Your task to perform on an android device: set the stopwatch Image 0: 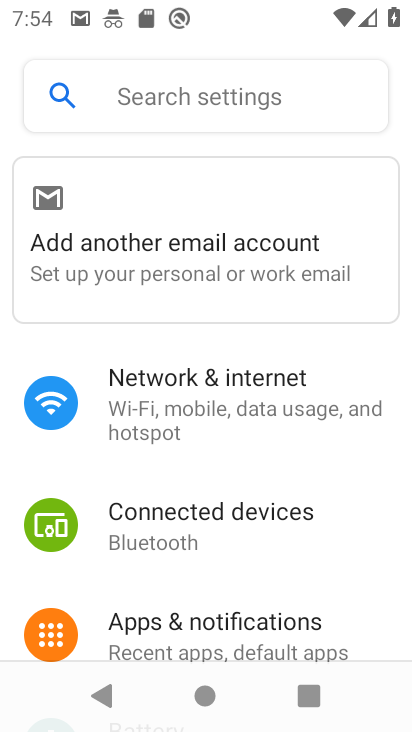
Step 0: press home button
Your task to perform on an android device: set the stopwatch Image 1: 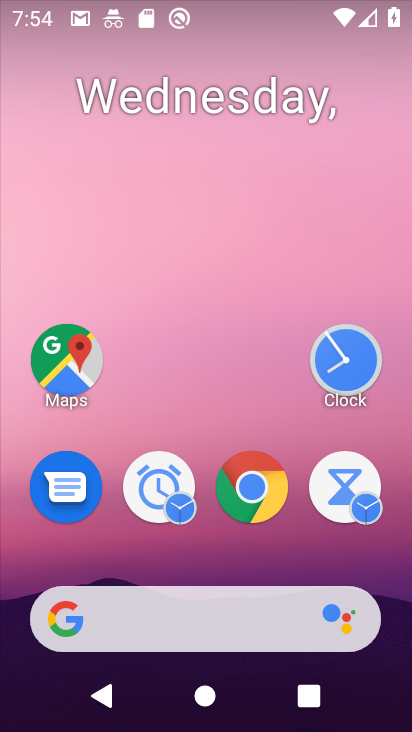
Step 1: drag from (262, 681) to (223, 207)
Your task to perform on an android device: set the stopwatch Image 2: 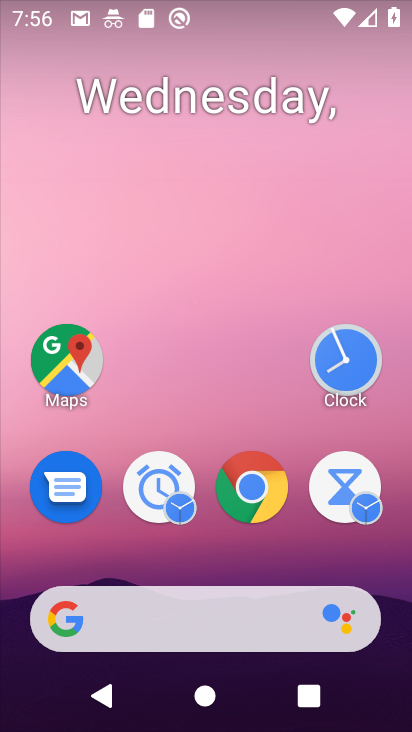
Step 2: drag from (222, 302) to (209, 180)
Your task to perform on an android device: set the stopwatch Image 3: 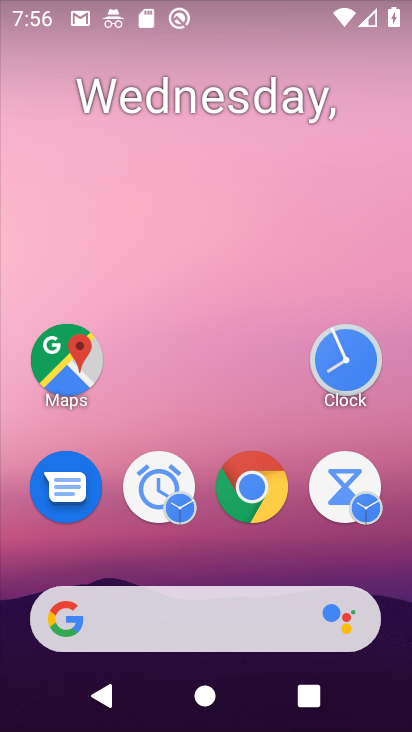
Step 3: click (193, 238)
Your task to perform on an android device: set the stopwatch Image 4: 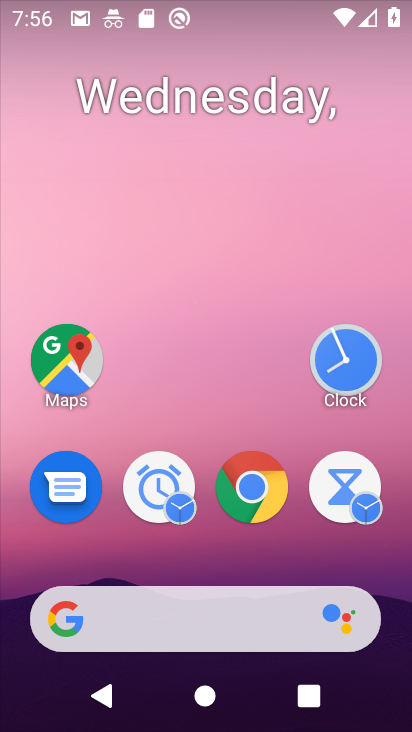
Step 4: drag from (266, 638) to (161, 278)
Your task to perform on an android device: set the stopwatch Image 5: 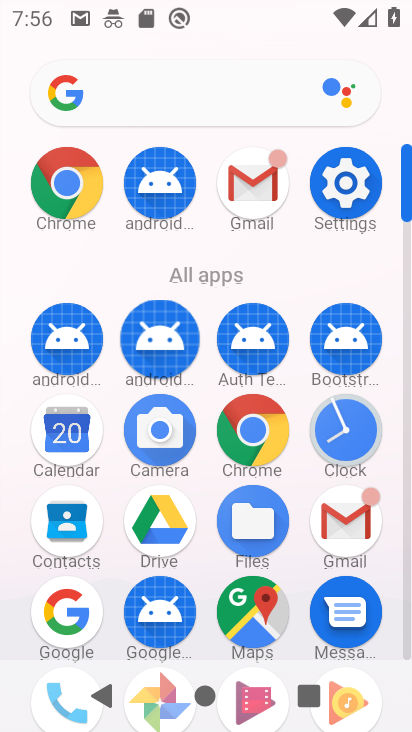
Step 5: click (329, 442)
Your task to perform on an android device: set the stopwatch Image 6: 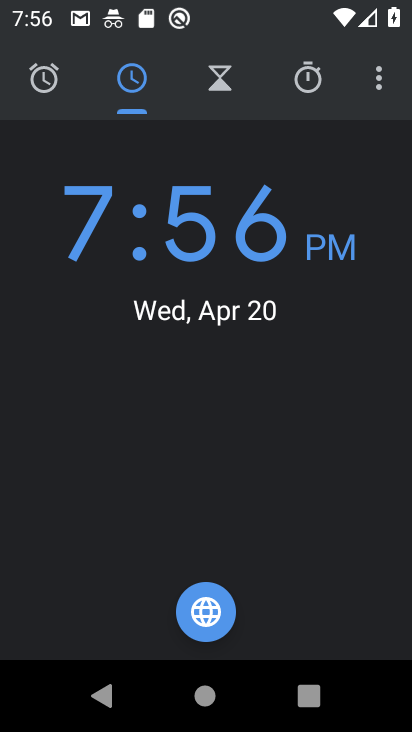
Step 6: click (318, 78)
Your task to perform on an android device: set the stopwatch Image 7: 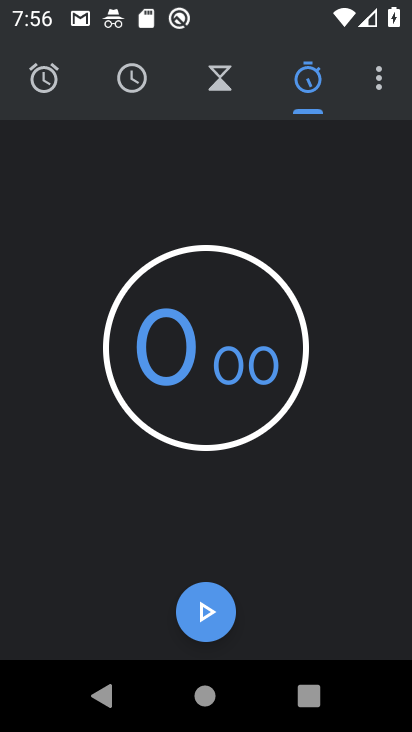
Step 7: click (318, 85)
Your task to perform on an android device: set the stopwatch Image 8: 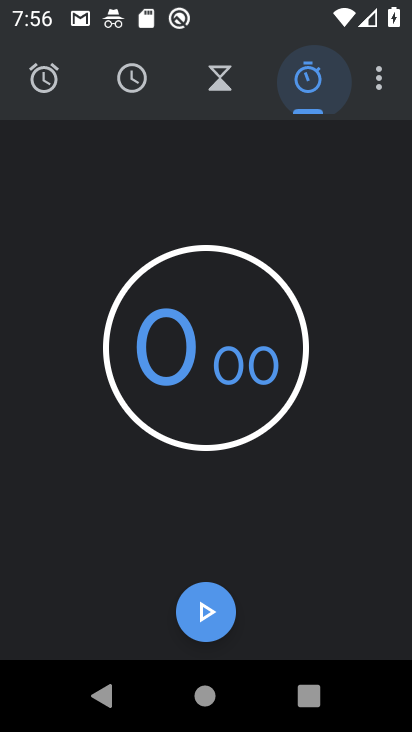
Step 8: click (316, 88)
Your task to perform on an android device: set the stopwatch Image 9: 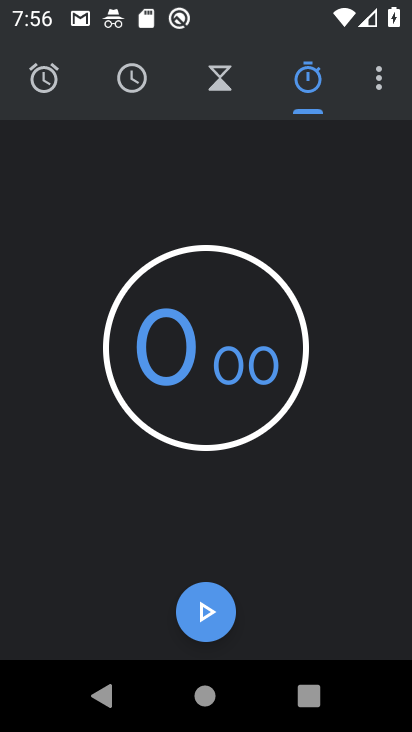
Step 9: click (306, 79)
Your task to perform on an android device: set the stopwatch Image 10: 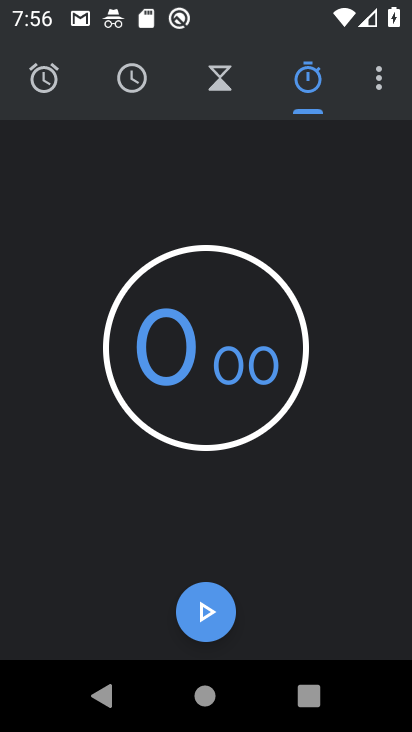
Step 10: click (198, 617)
Your task to perform on an android device: set the stopwatch Image 11: 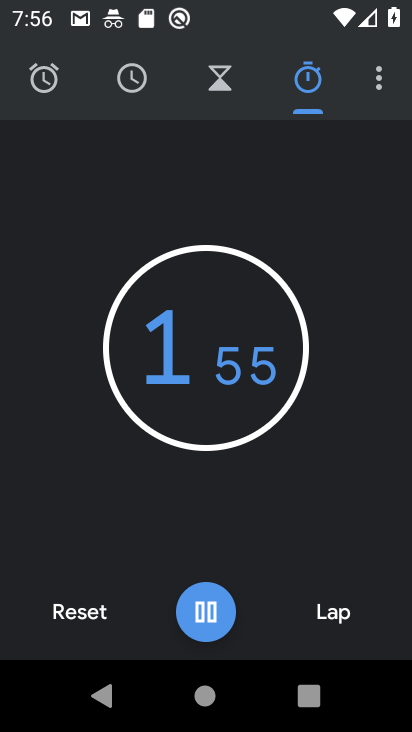
Step 11: click (198, 617)
Your task to perform on an android device: set the stopwatch Image 12: 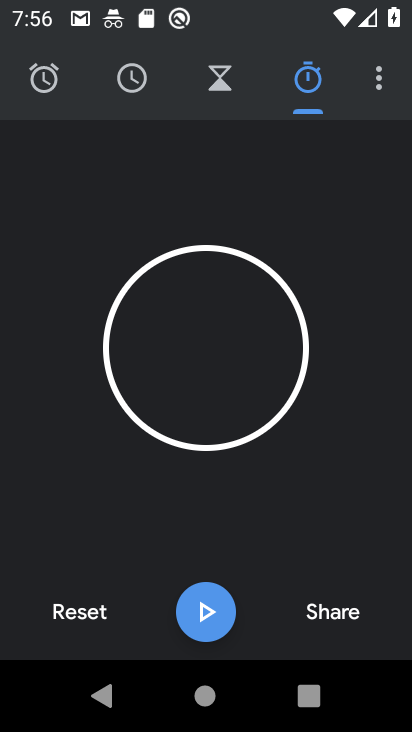
Step 12: click (207, 610)
Your task to perform on an android device: set the stopwatch Image 13: 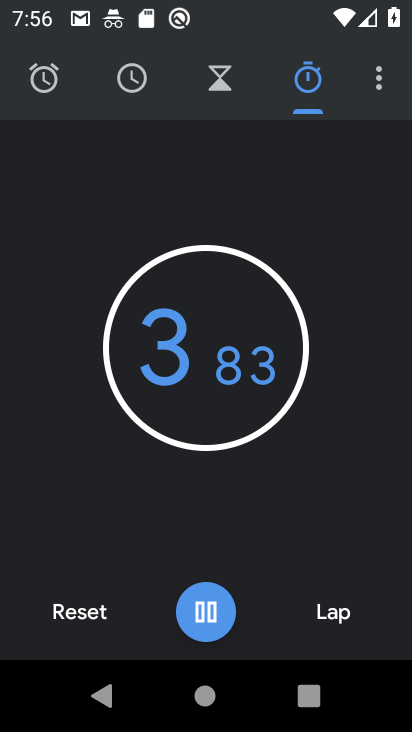
Step 13: click (207, 610)
Your task to perform on an android device: set the stopwatch Image 14: 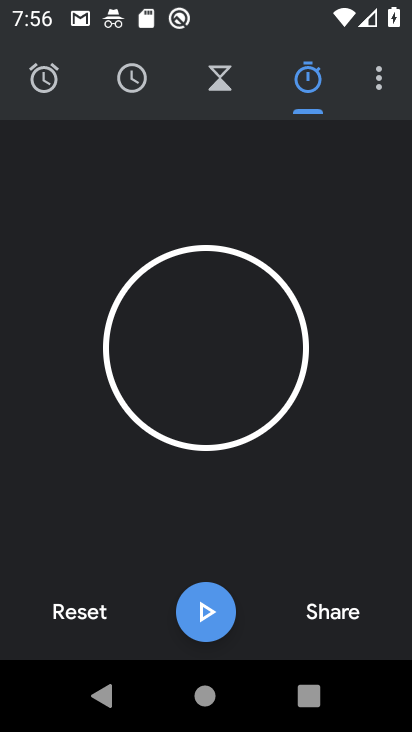
Step 14: task complete